Your task to perform on an android device: Go to Maps Image 0: 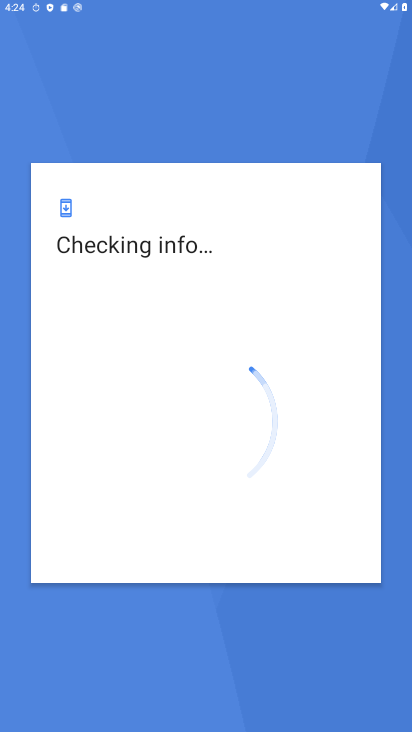
Step 0: press home button
Your task to perform on an android device: Go to Maps Image 1: 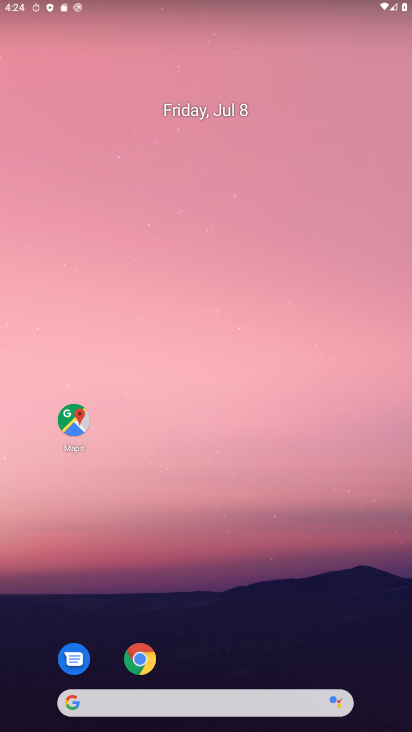
Step 1: drag from (287, 610) to (232, 74)
Your task to perform on an android device: Go to Maps Image 2: 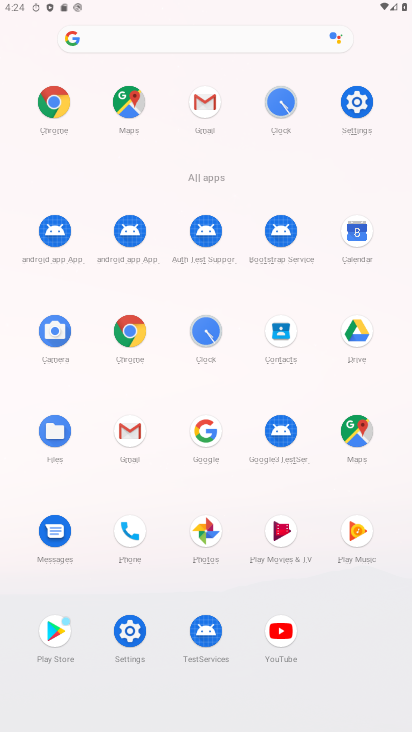
Step 2: click (134, 107)
Your task to perform on an android device: Go to Maps Image 3: 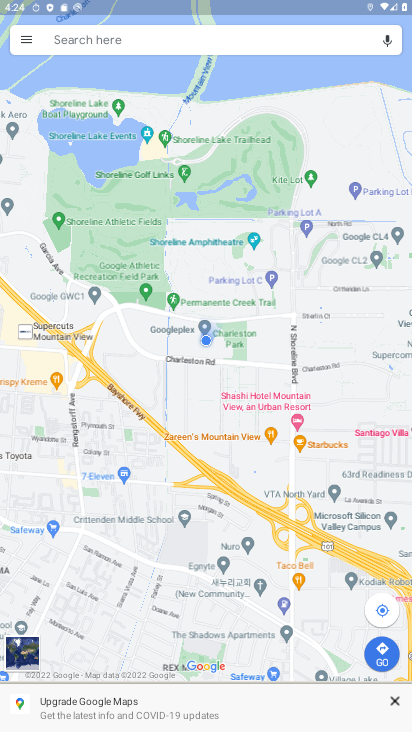
Step 3: task complete